Your task to perform on an android device: View the shopping cart on target.com. Add "bose quietcomfort 35" to the cart on target.com, then select checkout. Image 0: 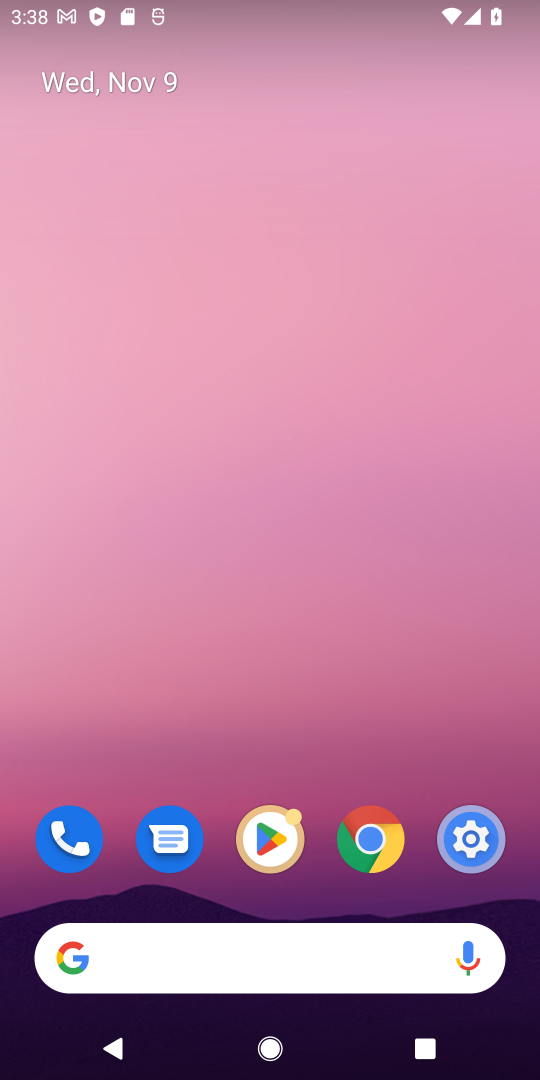
Step 0: click (251, 965)
Your task to perform on an android device: View the shopping cart on target.com. Add "bose quietcomfort 35" to the cart on target.com, then select checkout. Image 1: 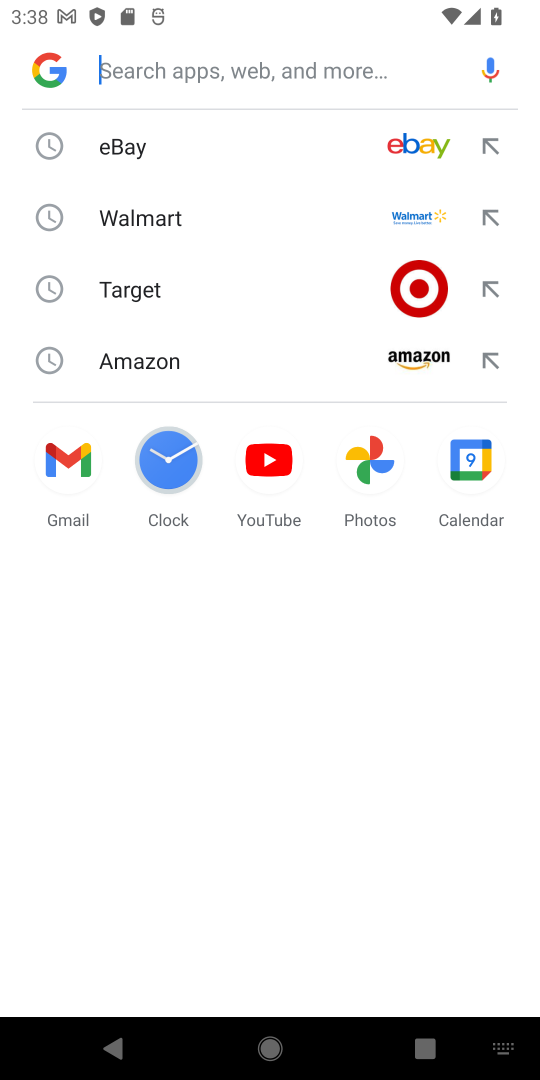
Step 1: click (144, 279)
Your task to perform on an android device: View the shopping cart on target.com. Add "bose quietcomfort 35" to the cart on target.com, then select checkout. Image 2: 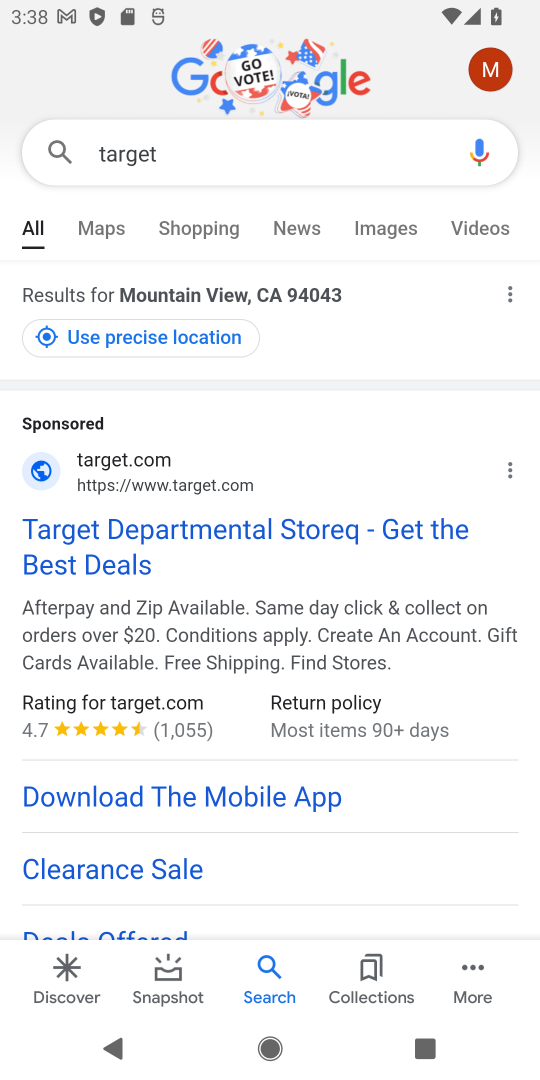
Step 2: click (94, 513)
Your task to perform on an android device: View the shopping cart on target.com. Add "bose quietcomfort 35" to the cart on target.com, then select checkout. Image 3: 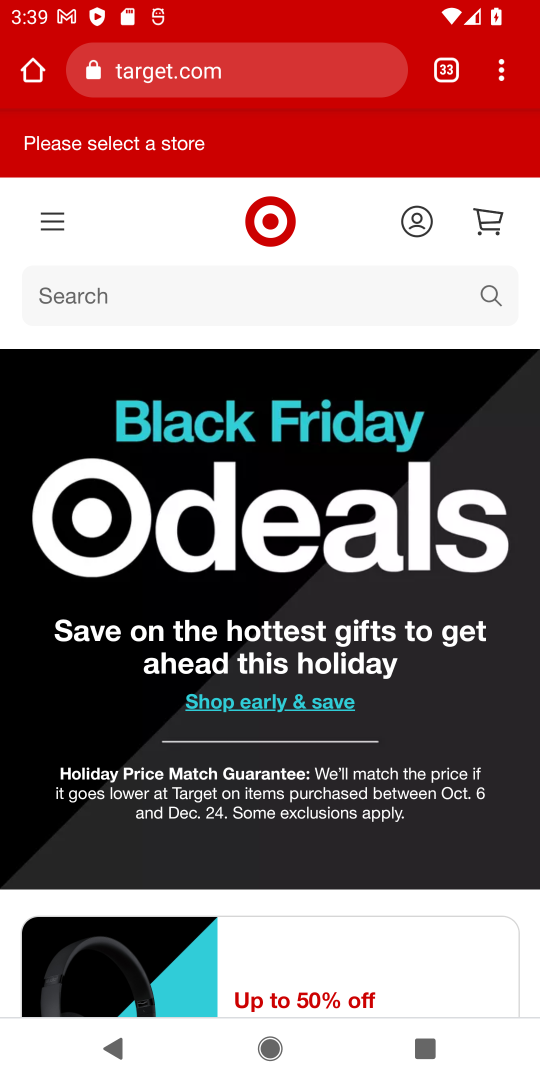
Step 3: task complete